Your task to perform on an android device: Clear the cart on target. Add "beats solo 3" to the cart on target, then select checkout. Image 0: 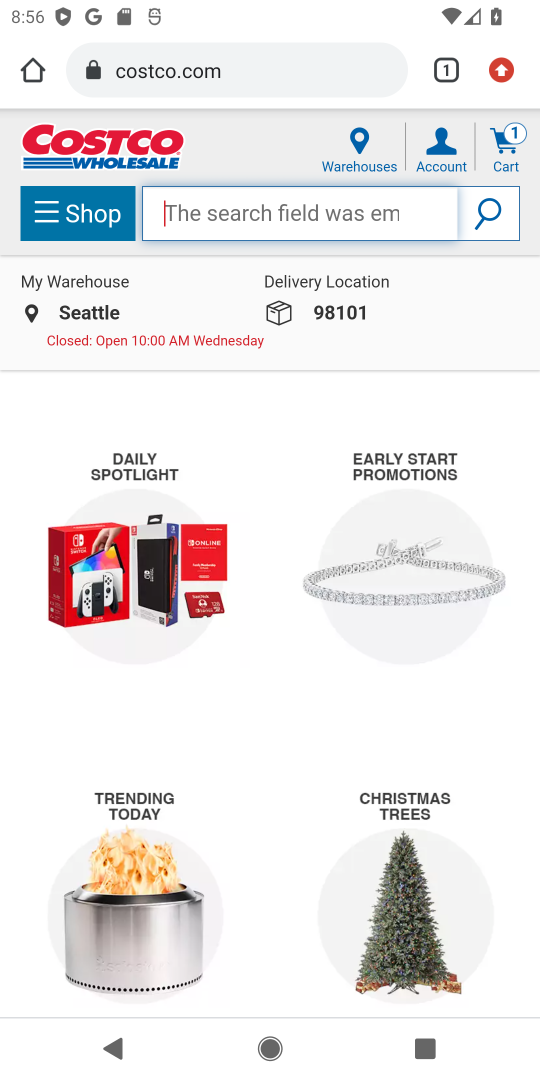
Step 0: press home button
Your task to perform on an android device: Clear the cart on target. Add "beats solo 3" to the cart on target, then select checkout. Image 1: 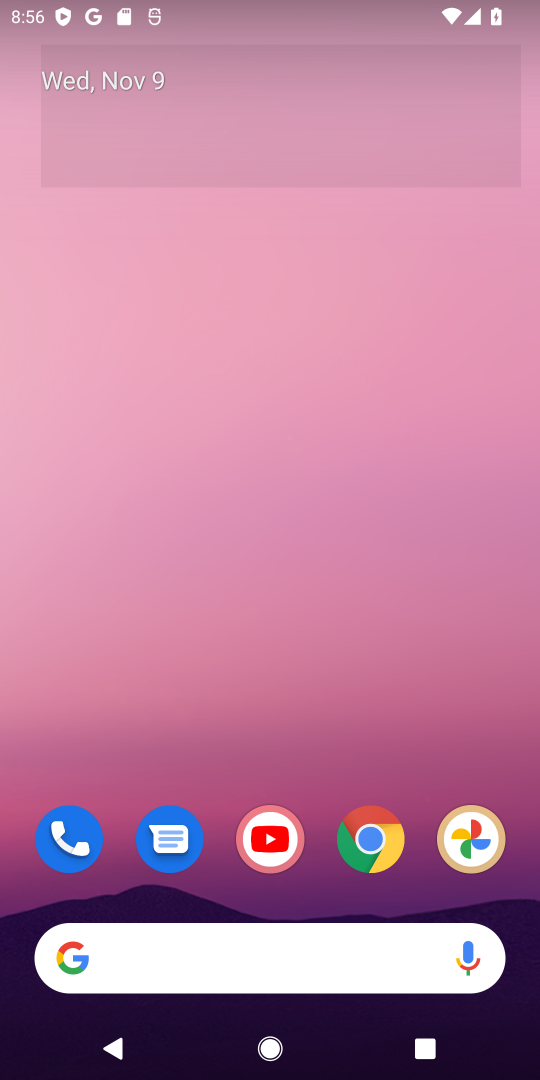
Step 1: drag from (305, 587) to (273, 214)
Your task to perform on an android device: Clear the cart on target. Add "beats solo 3" to the cart on target, then select checkout. Image 2: 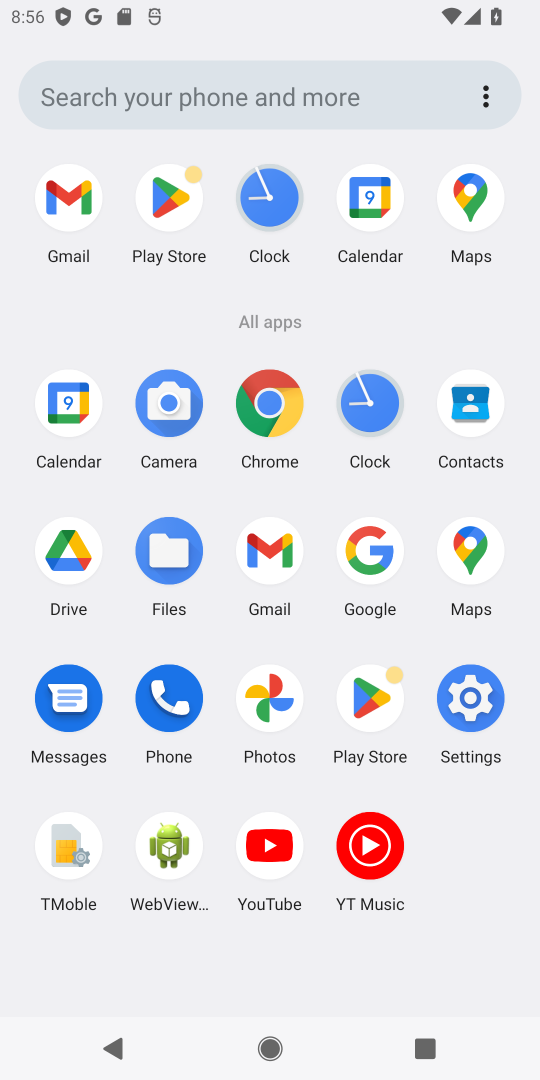
Step 2: click (259, 399)
Your task to perform on an android device: Clear the cart on target. Add "beats solo 3" to the cart on target, then select checkout. Image 3: 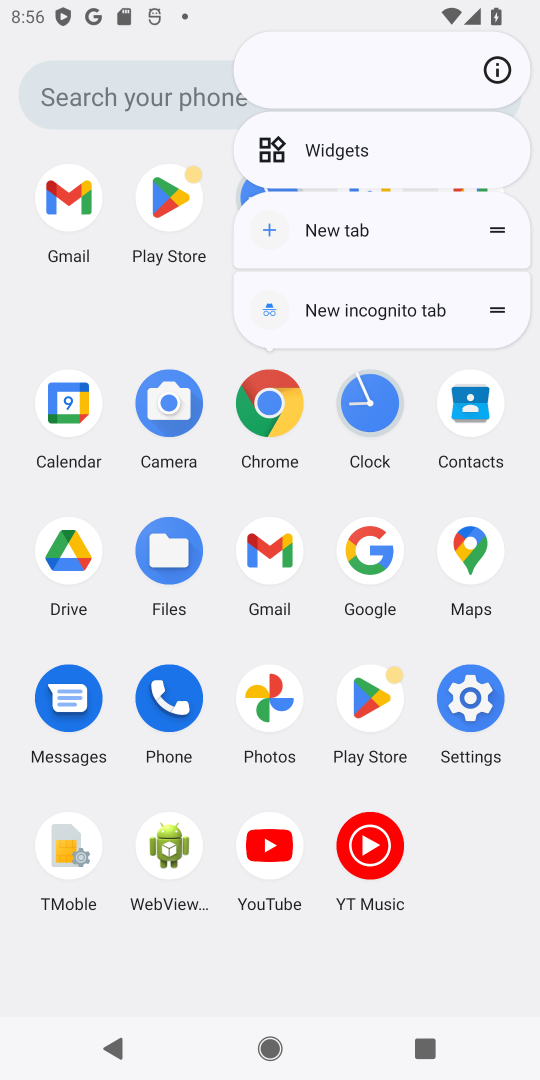
Step 3: click (248, 406)
Your task to perform on an android device: Clear the cart on target. Add "beats solo 3" to the cart on target, then select checkout. Image 4: 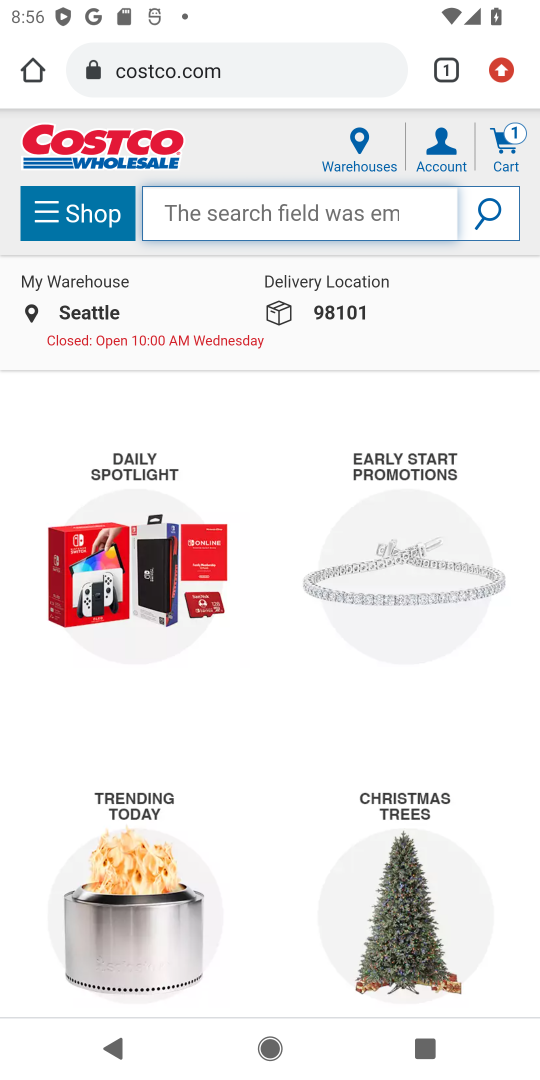
Step 4: click (168, 65)
Your task to perform on an android device: Clear the cart on target. Add "beats solo 3" to the cart on target, then select checkout. Image 5: 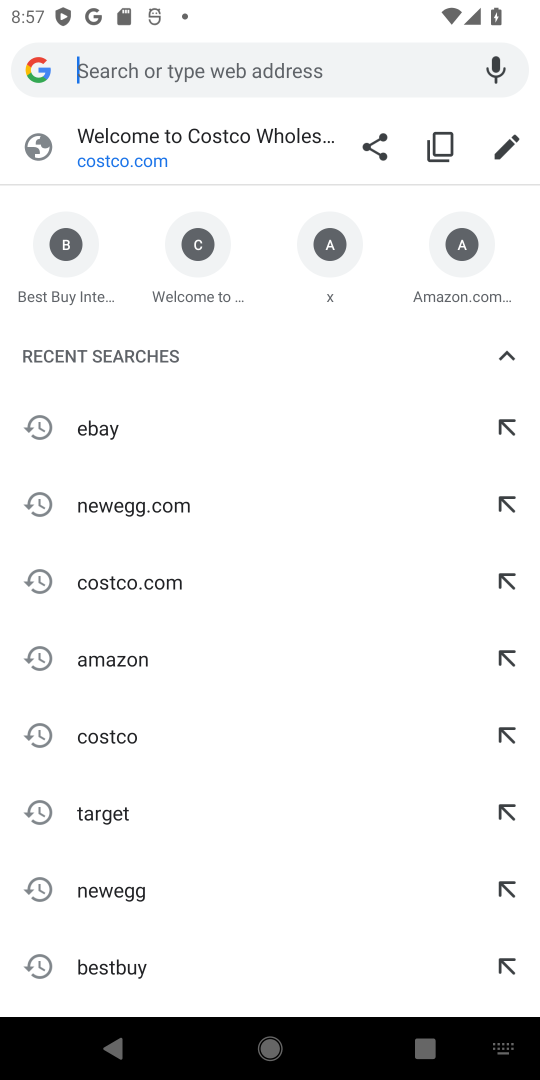
Step 5: type "target"
Your task to perform on an android device: Clear the cart on target. Add "beats solo 3" to the cart on target, then select checkout. Image 6: 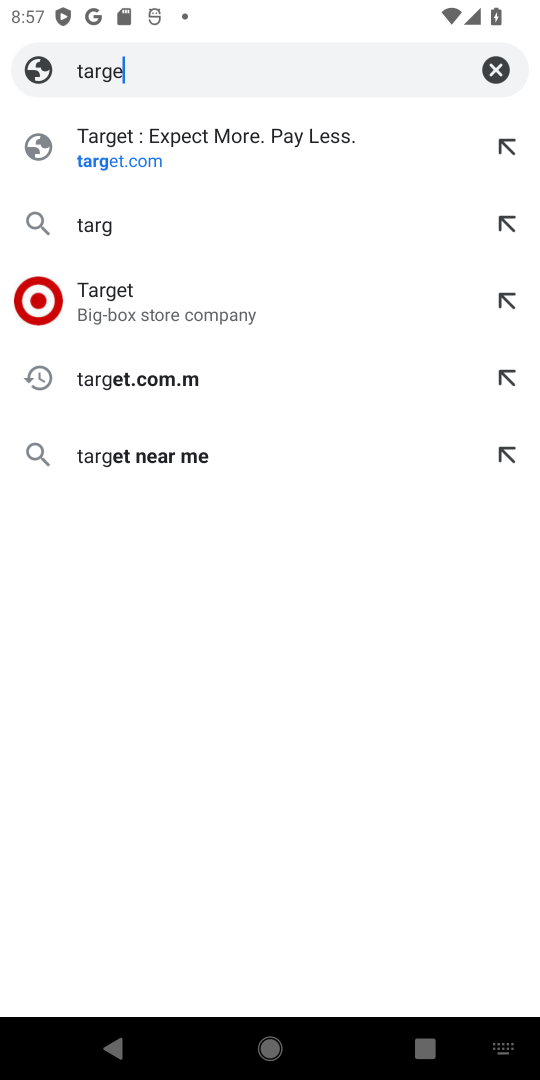
Step 6: press enter
Your task to perform on an android device: Clear the cart on target. Add "beats solo 3" to the cart on target, then select checkout. Image 7: 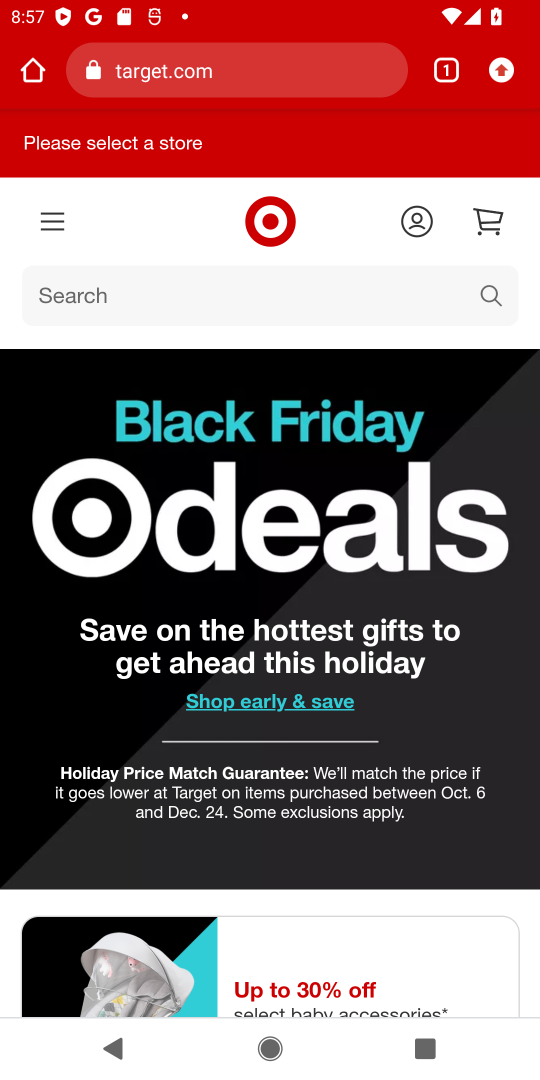
Step 7: click (197, 294)
Your task to perform on an android device: Clear the cart on target. Add "beats solo 3" to the cart on target, then select checkout. Image 8: 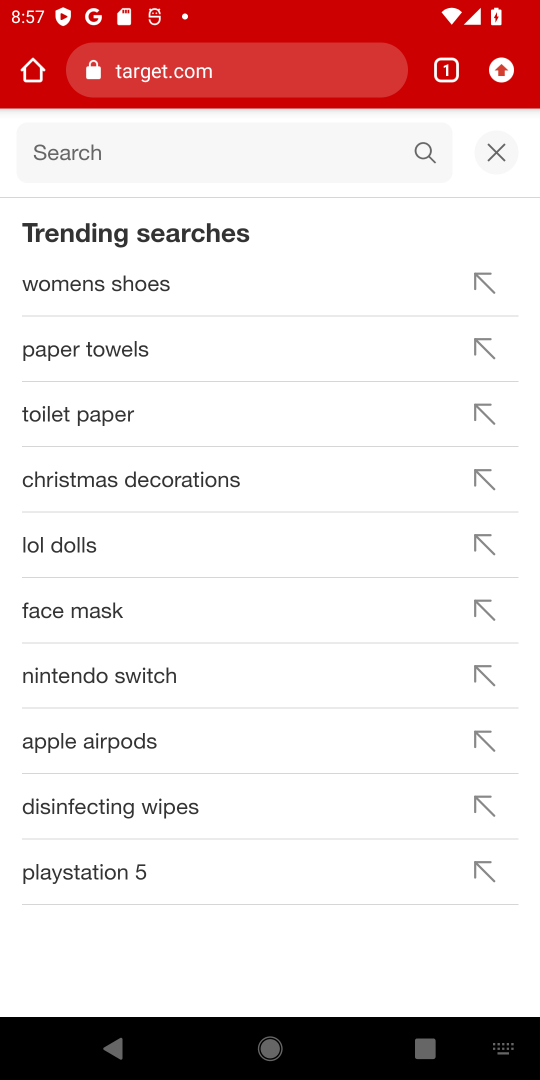
Step 8: type "beats solo 3"
Your task to perform on an android device: Clear the cart on target. Add "beats solo 3" to the cart on target, then select checkout. Image 9: 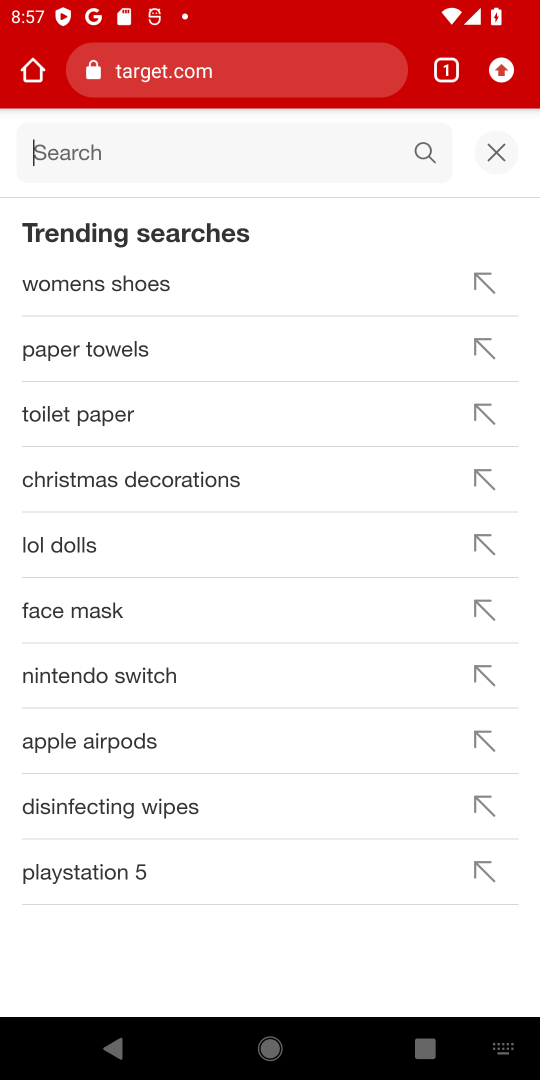
Step 9: press enter
Your task to perform on an android device: Clear the cart on target. Add "beats solo 3" to the cart on target, then select checkout. Image 10: 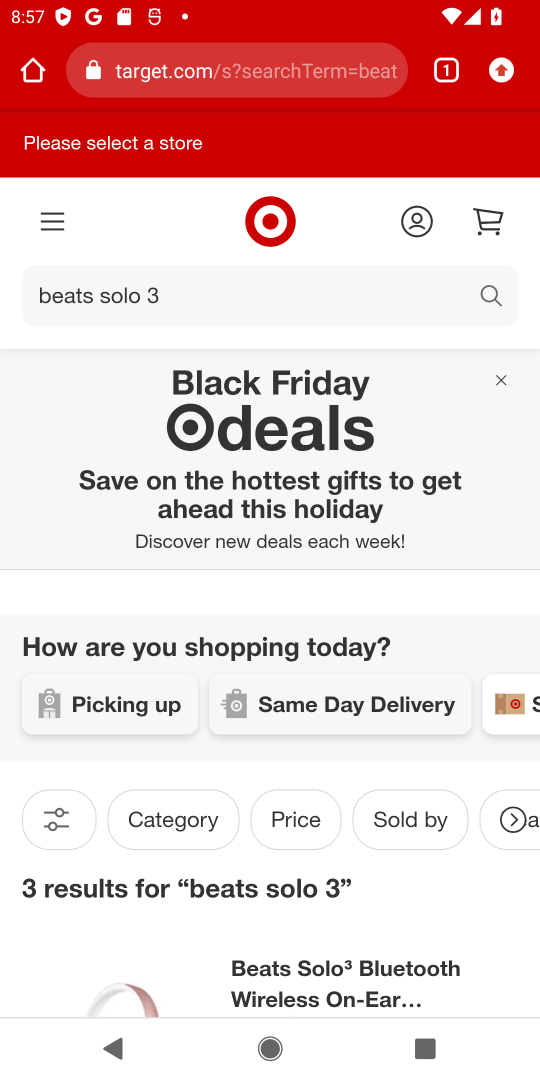
Step 10: drag from (270, 797) to (256, 506)
Your task to perform on an android device: Clear the cart on target. Add "beats solo 3" to the cart on target, then select checkout. Image 11: 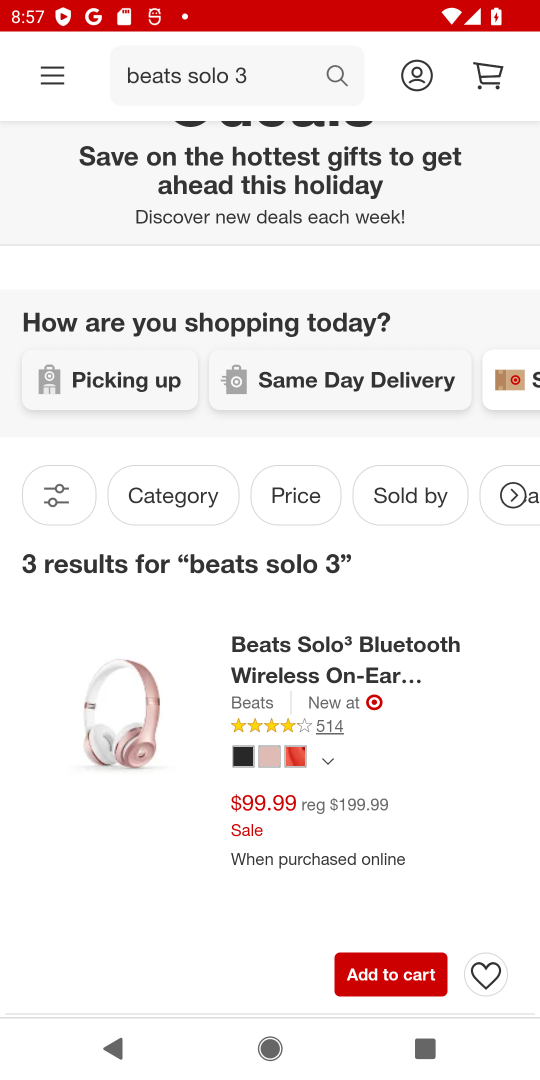
Step 11: click (399, 972)
Your task to perform on an android device: Clear the cart on target. Add "beats solo 3" to the cart on target, then select checkout. Image 12: 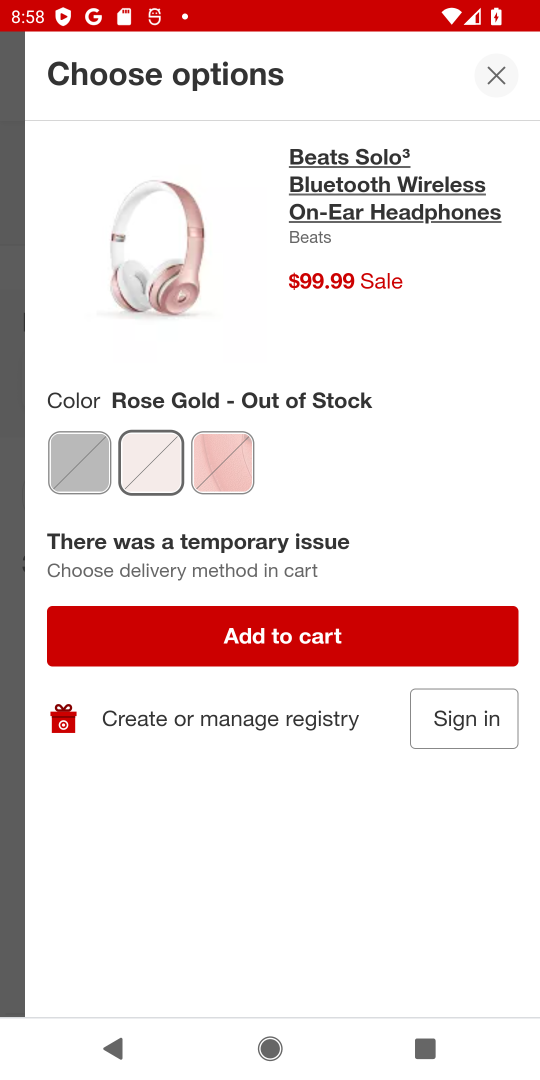
Step 12: click (266, 633)
Your task to perform on an android device: Clear the cart on target. Add "beats solo 3" to the cart on target, then select checkout. Image 13: 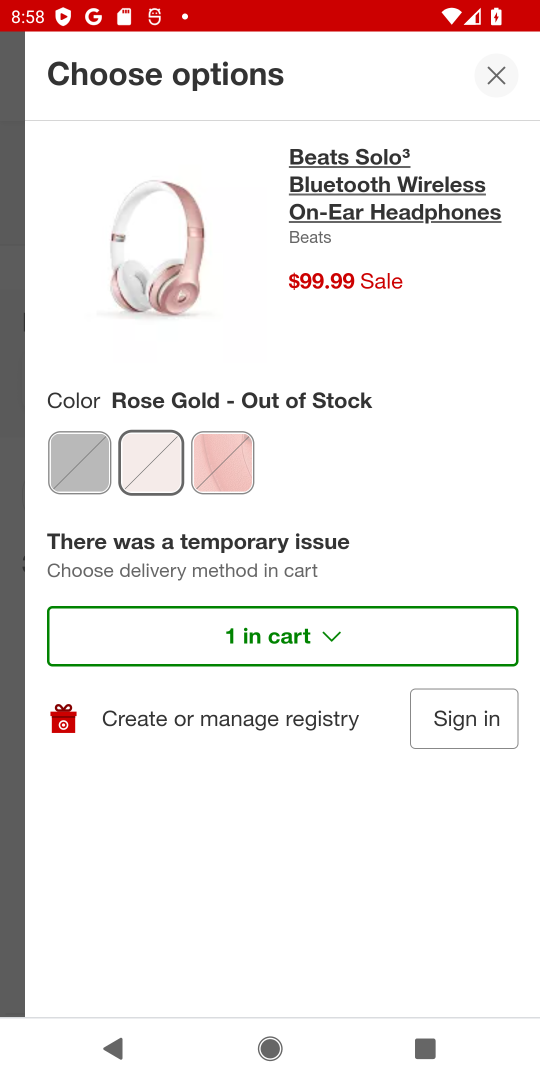
Step 13: click (499, 77)
Your task to perform on an android device: Clear the cart on target. Add "beats solo 3" to the cart on target, then select checkout. Image 14: 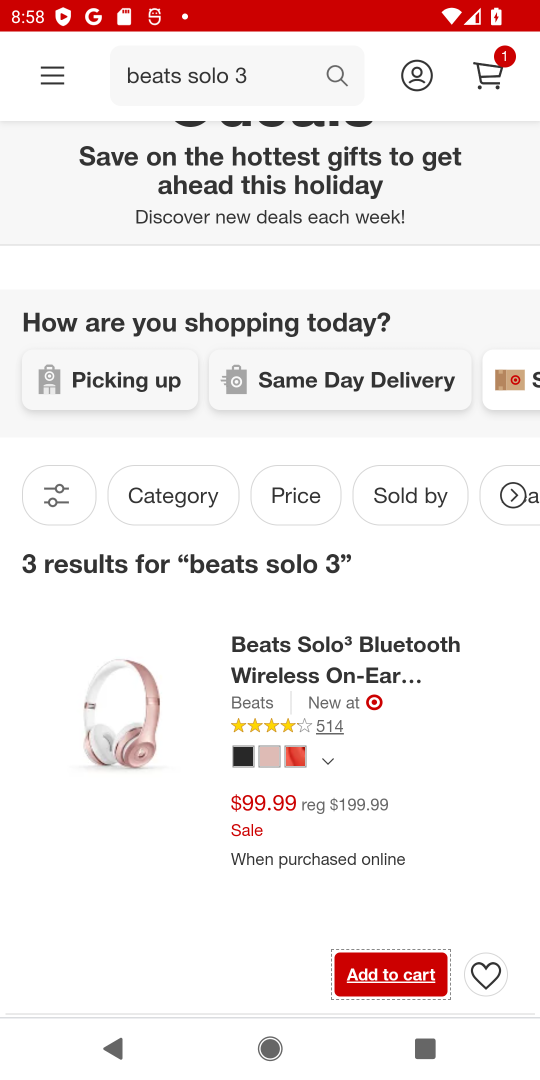
Step 14: click (498, 71)
Your task to perform on an android device: Clear the cart on target. Add "beats solo 3" to the cart on target, then select checkout. Image 15: 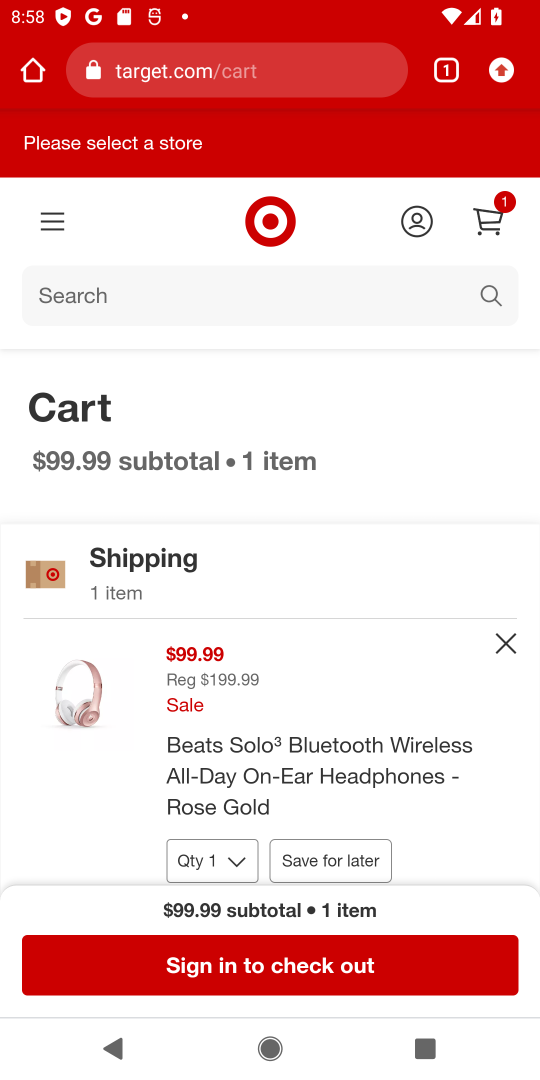
Step 15: drag from (365, 837) to (328, 647)
Your task to perform on an android device: Clear the cart on target. Add "beats solo 3" to the cart on target, then select checkout. Image 16: 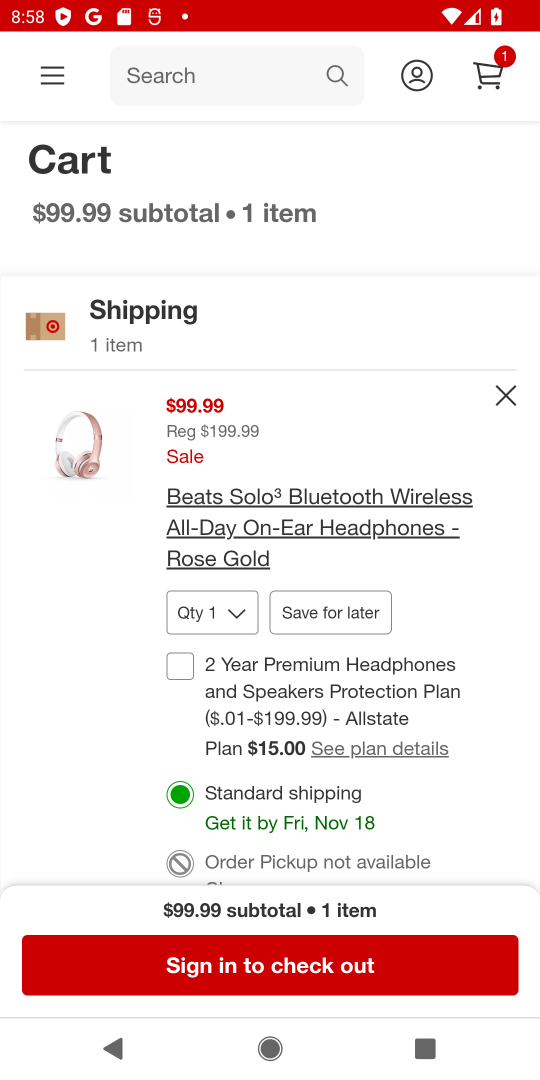
Step 16: click (318, 968)
Your task to perform on an android device: Clear the cart on target. Add "beats solo 3" to the cart on target, then select checkout. Image 17: 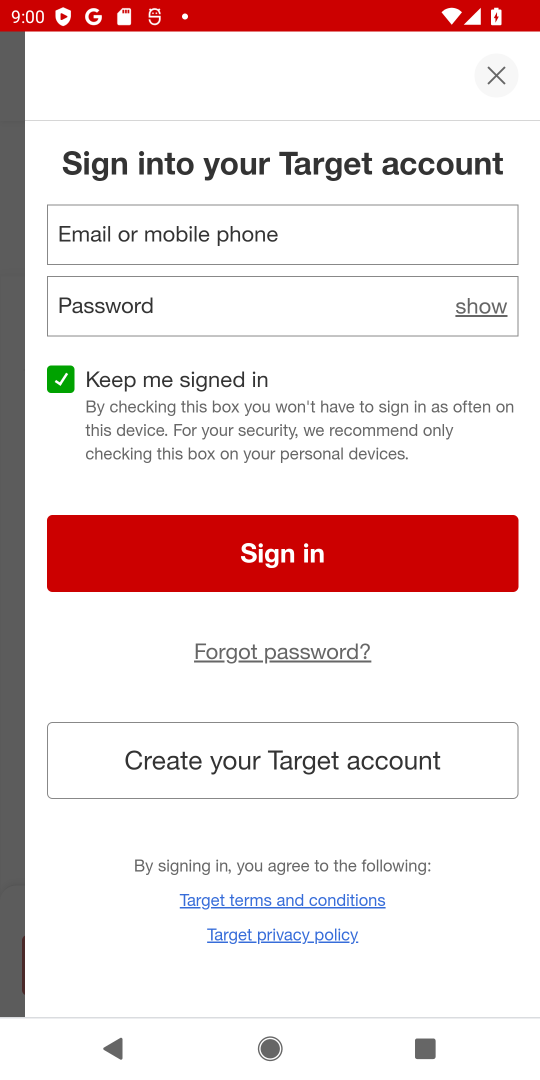
Step 17: task complete